Your task to perform on an android device: change text size in settings app Image 0: 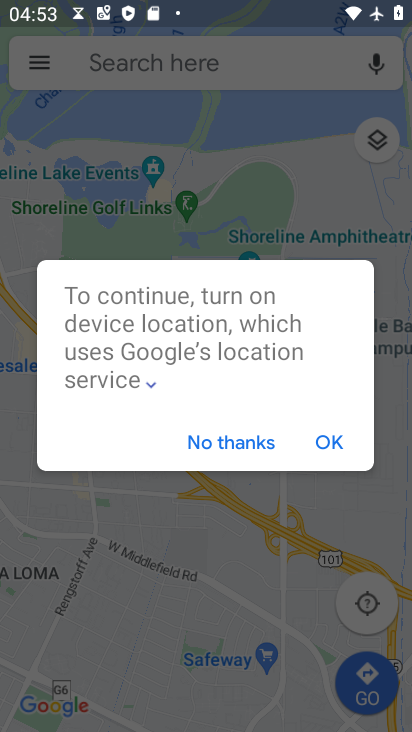
Step 0: click (235, 440)
Your task to perform on an android device: change text size in settings app Image 1: 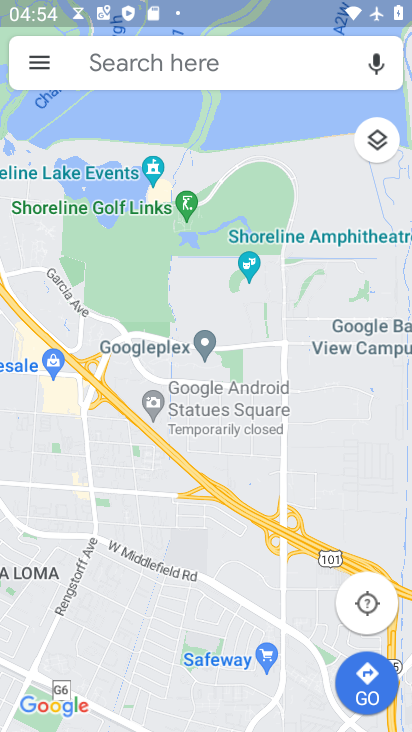
Step 1: press back button
Your task to perform on an android device: change text size in settings app Image 2: 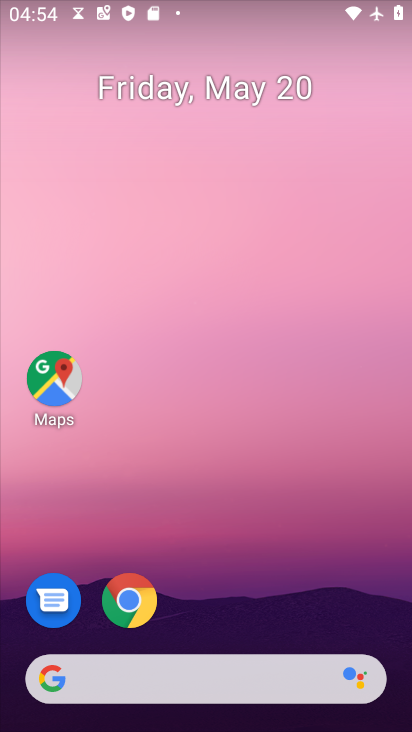
Step 2: drag from (355, 520) to (281, 57)
Your task to perform on an android device: change text size in settings app Image 3: 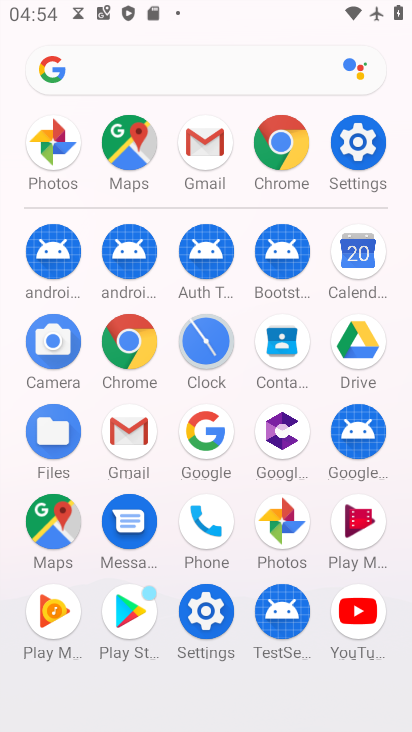
Step 3: drag from (18, 502) to (19, 201)
Your task to perform on an android device: change text size in settings app Image 4: 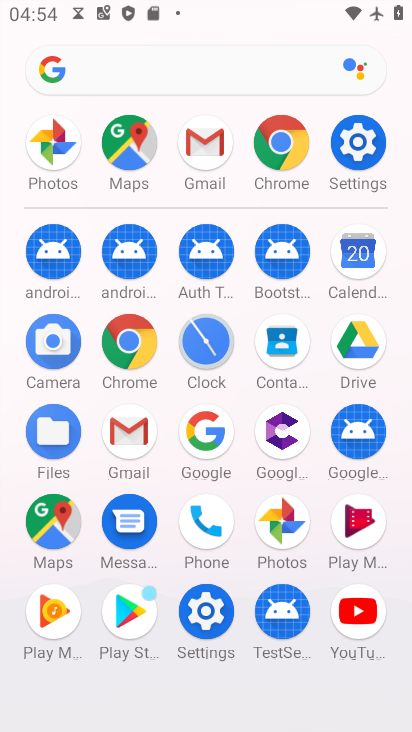
Step 4: click (203, 610)
Your task to perform on an android device: change text size in settings app Image 5: 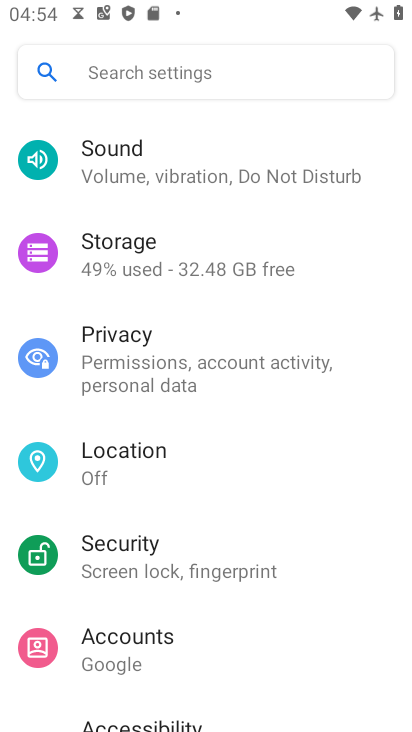
Step 5: drag from (261, 592) to (259, 234)
Your task to perform on an android device: change text size in settings app Image 6: 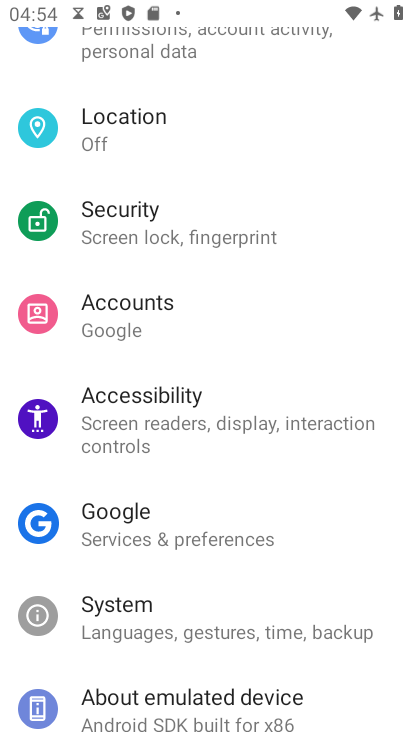
Step 6: drag from (221, 576) to (233, 212)
Your task to perform on an android device: change text size in settings app Image 7: 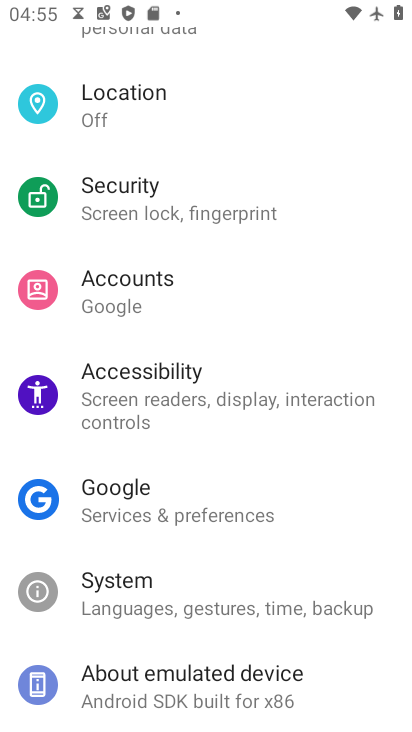
Step 7: drag from (270, 190) to (299, 593)
Your task to perform on an android device: change text size in settings app Image 8: 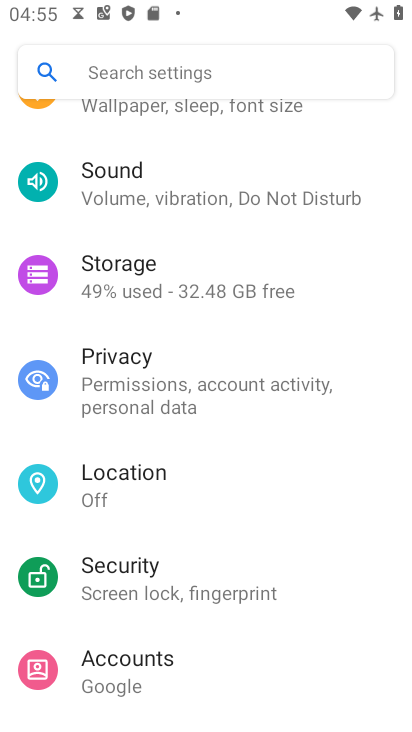
Step 8: drag from (246, 211) to (271, 602)
Your task to perform on an android device: change text size in settings app Image 9: 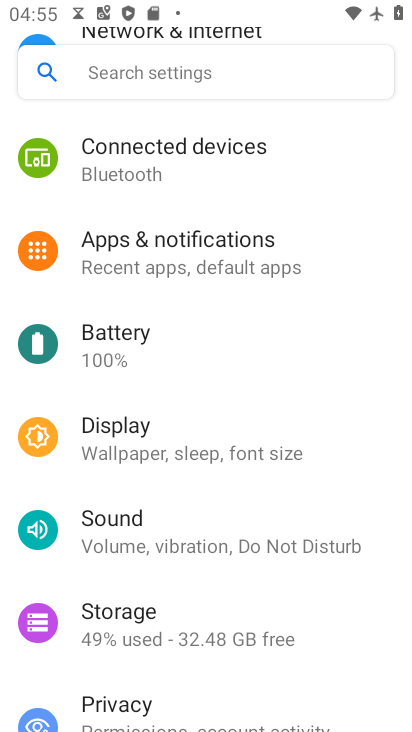
Step 9: click (194, 442)
Your task to perform on an android device: change text size in settings app Image 10: 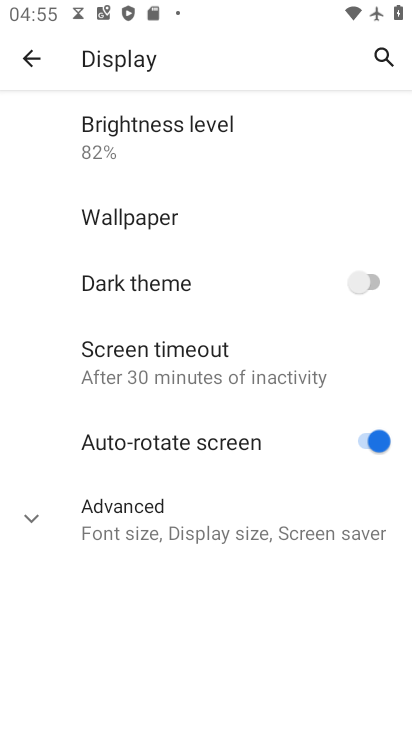
Step 10: click (52, 517)
Your task to perform on an android device: change text size in settings app Image 11: 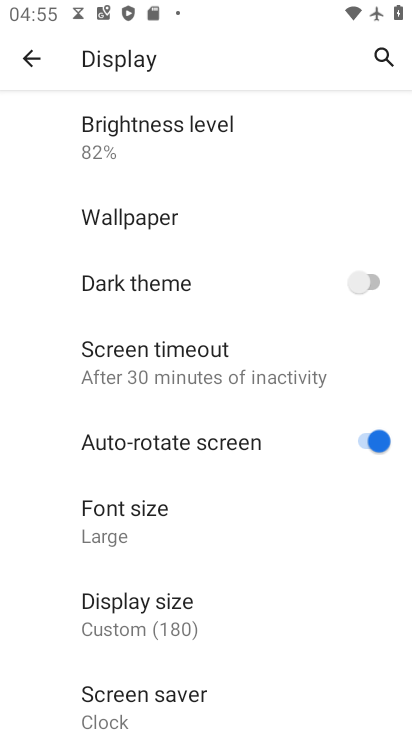
Step 11: click (176, 522)
Your task to perform on an android device: change text size in settings app Image 12: 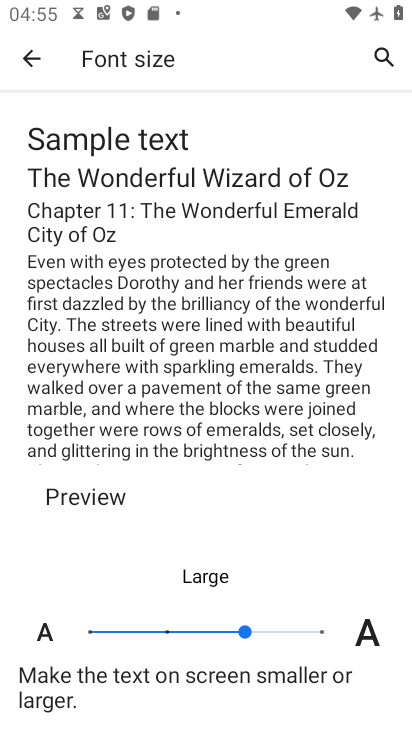
Step 12: click (310, 627)
Your task to perform on an android device: change text size in settings app Image 13: 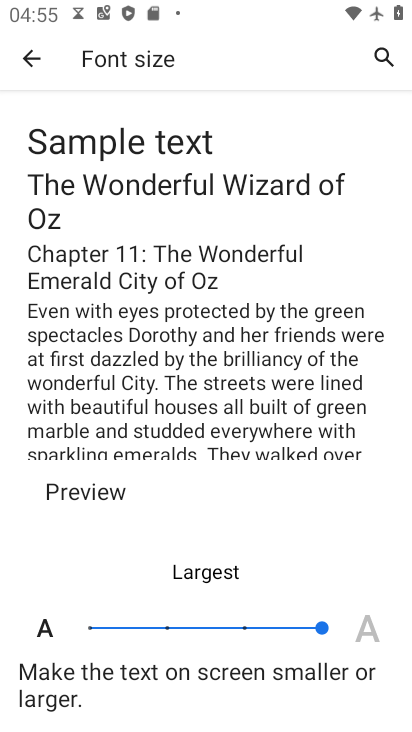
Step 13: task complete